Your task to perform on an android device: What's a good restaurant in Dallas? Image 0: 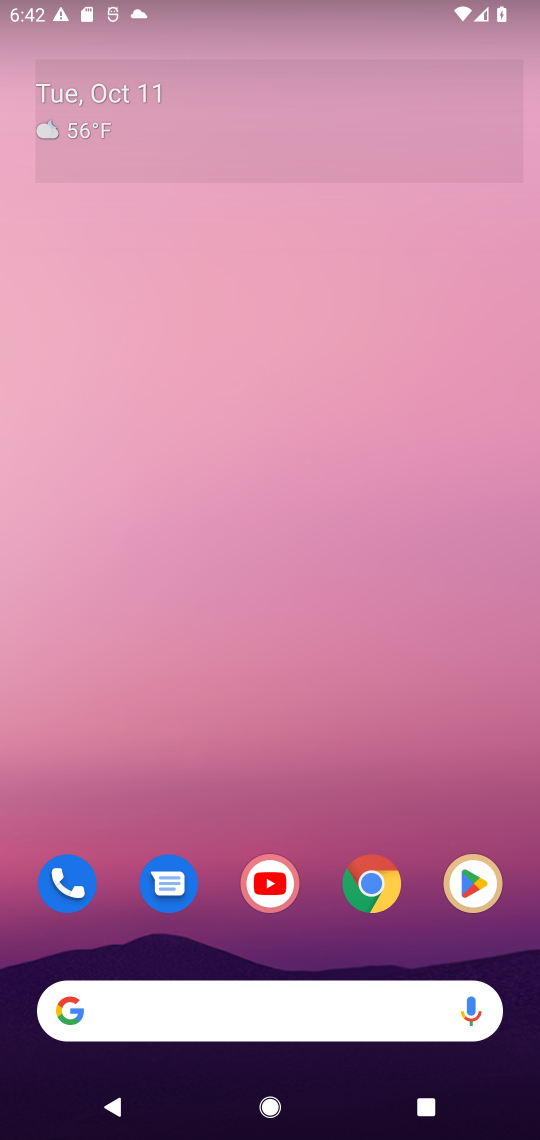
Step 0: drag from (313, 901) to (318, 106)
Your task to perform on an android device: What's a good restaurant in Dallas? Image 1: 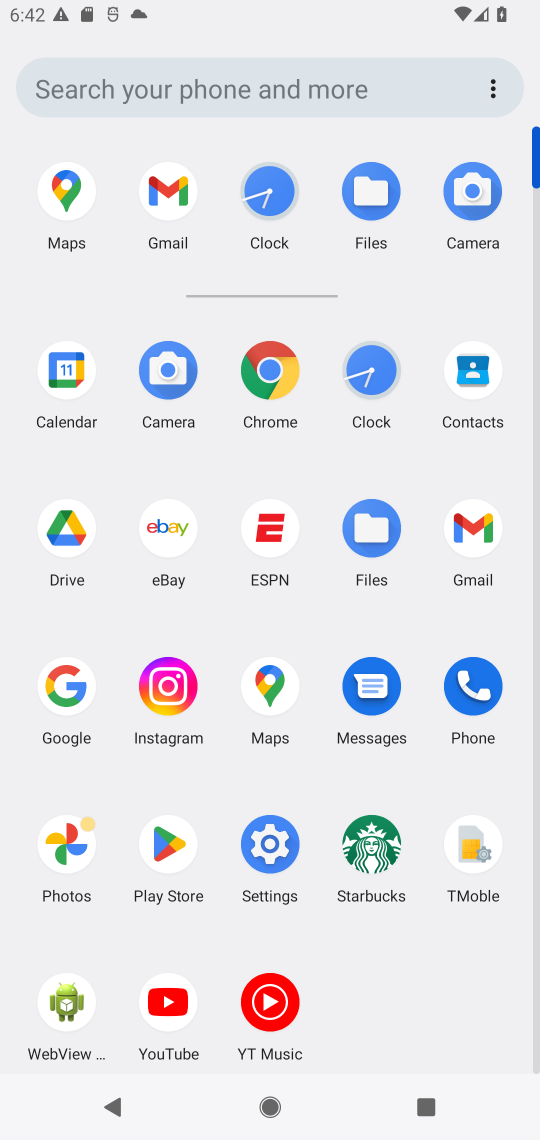
Step 1: click (275, 362)
Your task to perform on an android device: What's a good restaurant in Dallas? Image 2: 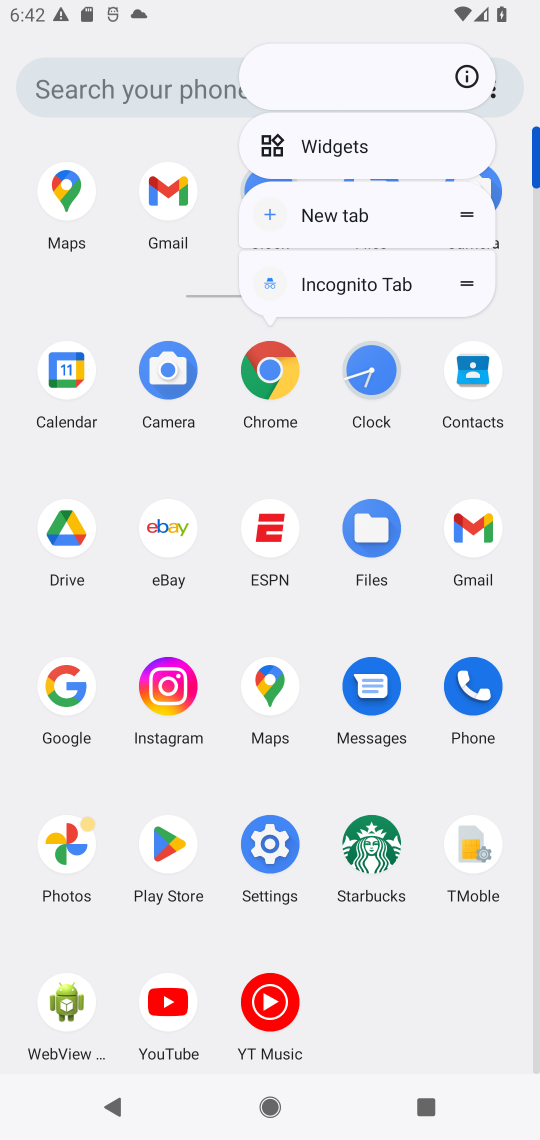
Step 2: click (276, 364)
Your task to perform on an android device: What's a good restaurant in Dallas? Image 3: 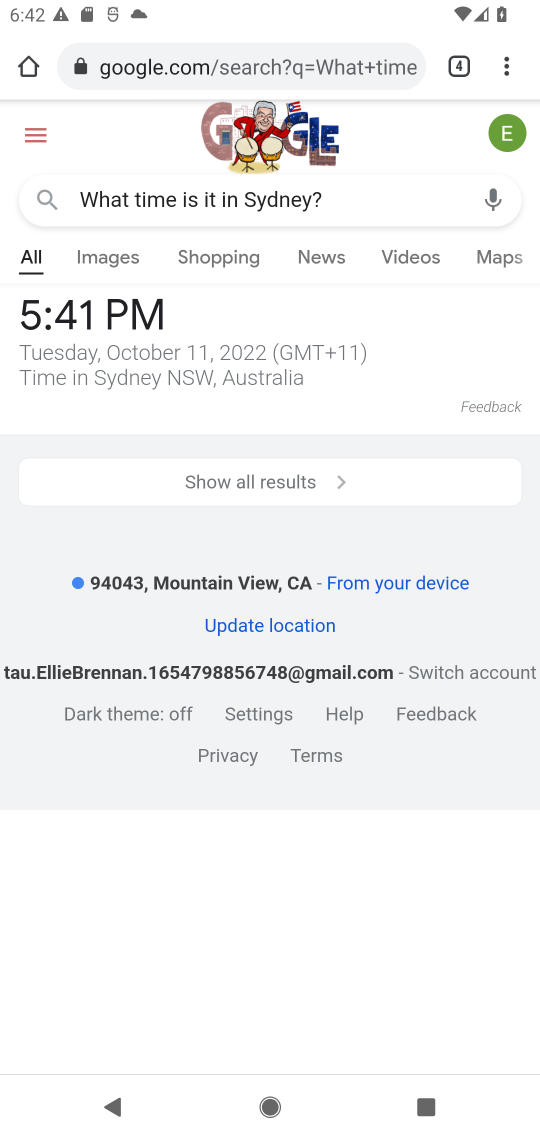
Step 3: click (321, 62)
Your task to perform on an android device: What's a good restaurant in Dallas? Image 4: 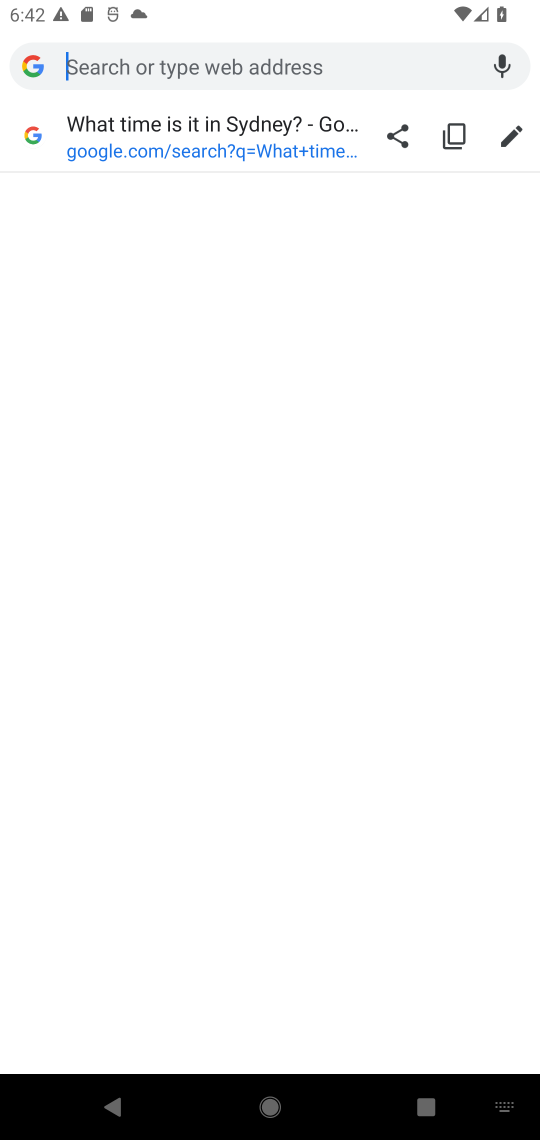
Step 4: type "What's a good restaurant in Dallas?"
Your task to perform on an android device: What's a good restaurant in Dallas? Image 5: 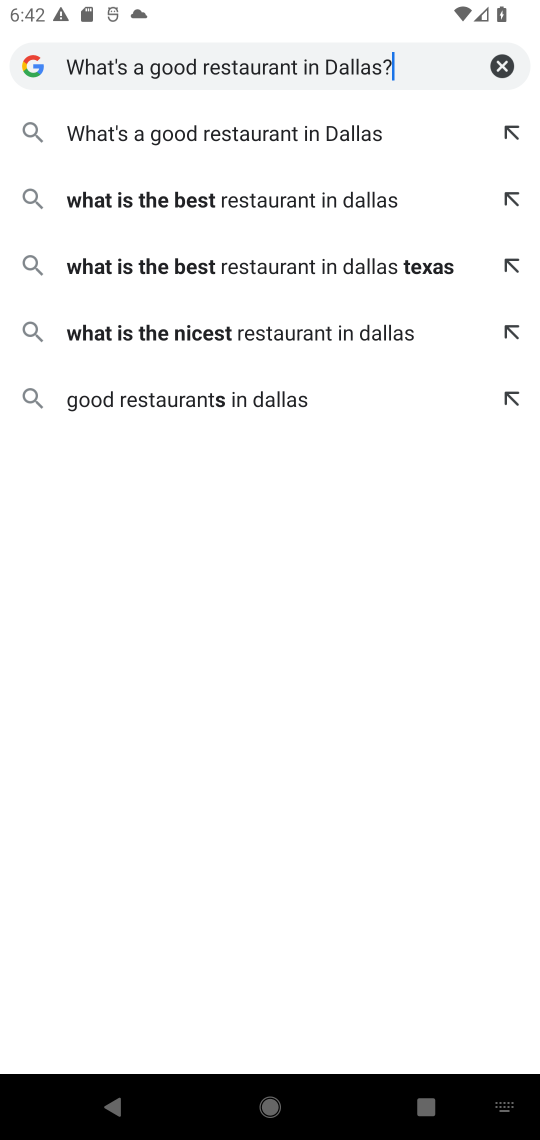
Step 5: press enter
Your task to perform on an android device: What's a good restaurant in Dallas? Image 6: 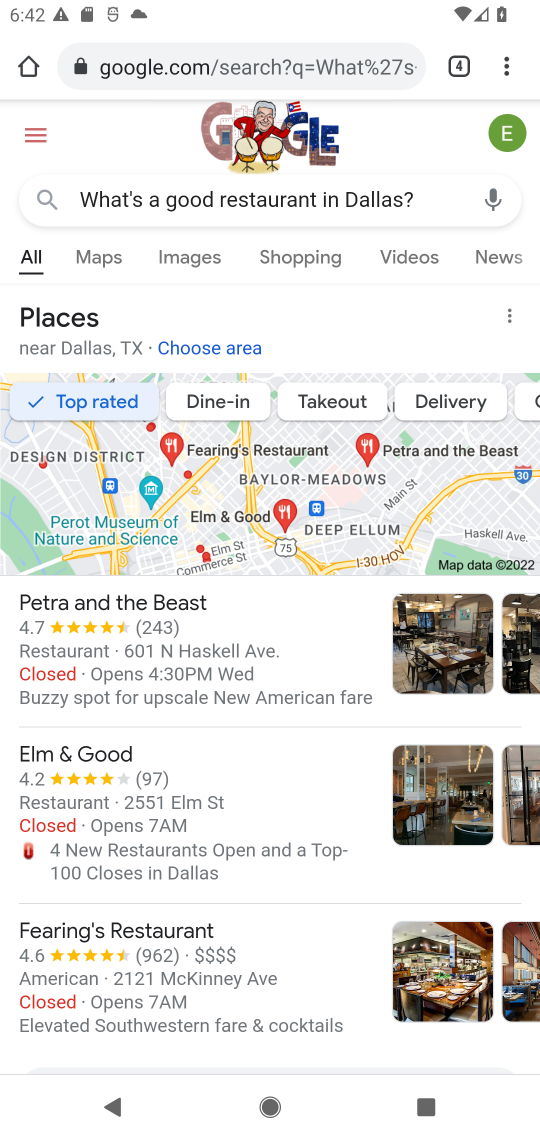
Step 6: task complete